Your task to perform on an android device: stop showing notifications on the lock screen Image 0: 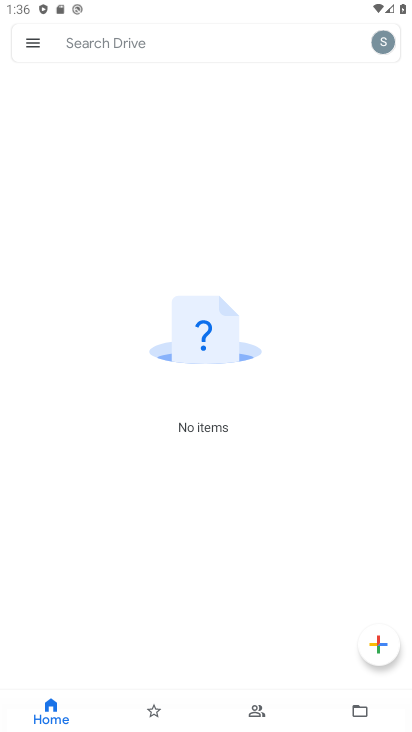
Step 0: press home button
Your task to perform on an android device: stop showing notifications on the lock screen Image 1: 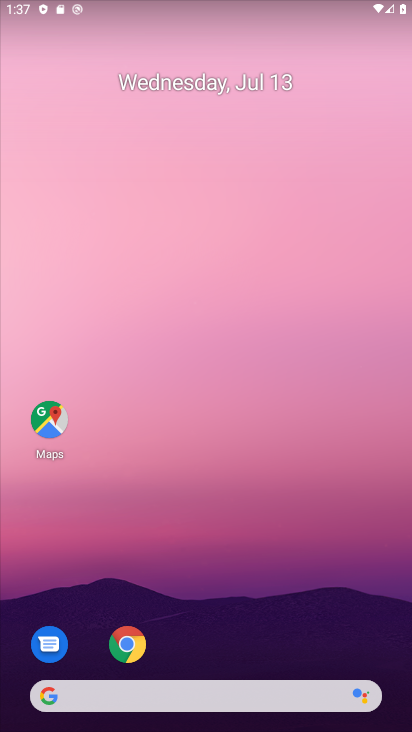
Step 1: drag from (178, 636) to (191, 269)
Your task to perform on an android device: stop showing notifications on the lock screen Image 2: 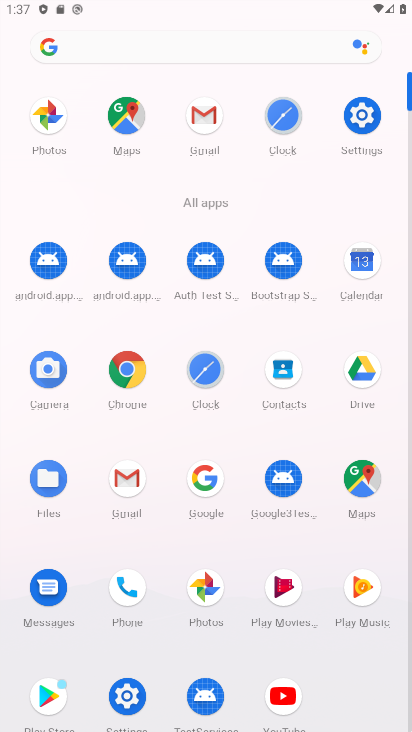
Step 2: click (128, 696)
Your task to perform on an android device: stop showing notifications on the lock screen Image 3: 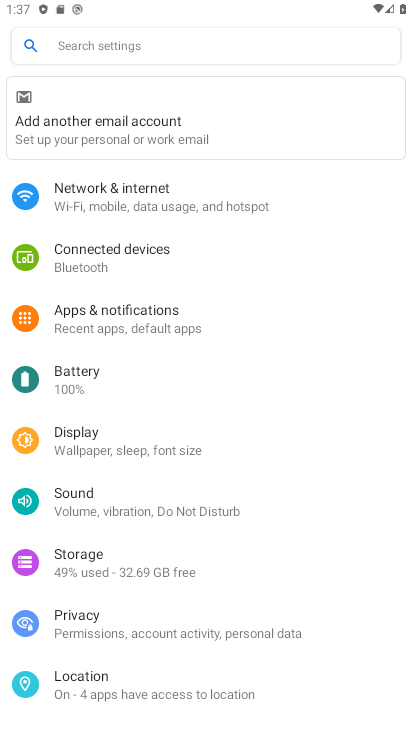
Step 3: click (100, 324)
Your task to perform on an android device: stop showing notifications on the lock screen Image 4: 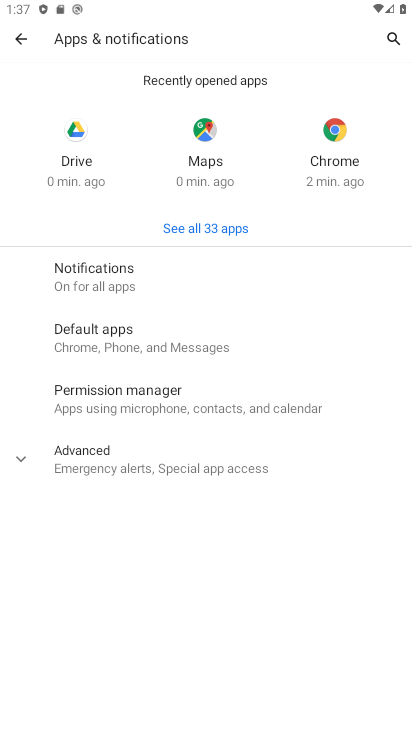
Step 4: click (147, 293)
Your task to perform on an android device: stop showing notifications on the lock screen Image 5: 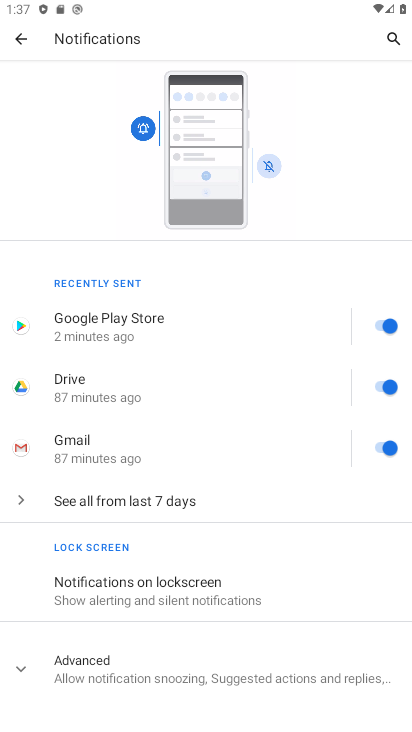
Step 5: click (155, 569)
Your task to perform on an android device: stop showing notifications on the lock screen Image 6: 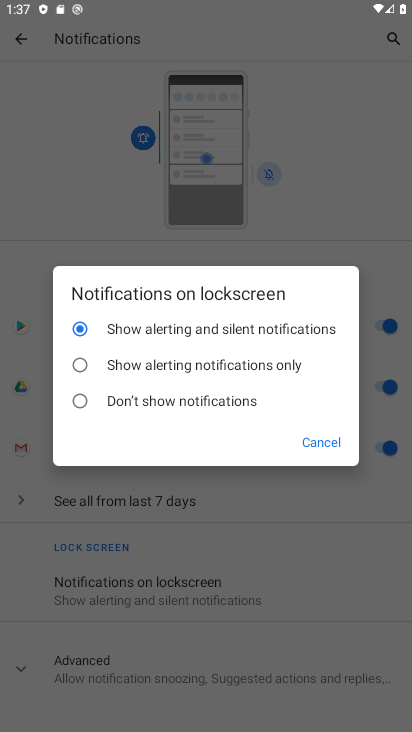
Step 6: click (158, 404)
Your task to perform on an android device: stop showing notifications on the lock screen Image 7: 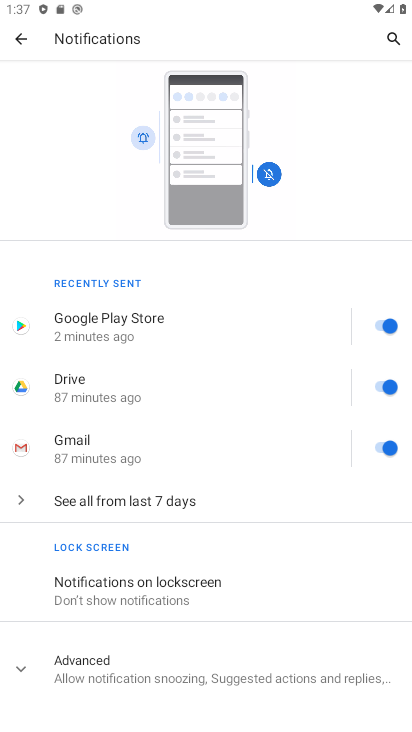
Step 7: task complete